Your task to perform on an android device: open app "Indeed Job Search" (install if not already installed), go to login, and select forgot password Image 0: 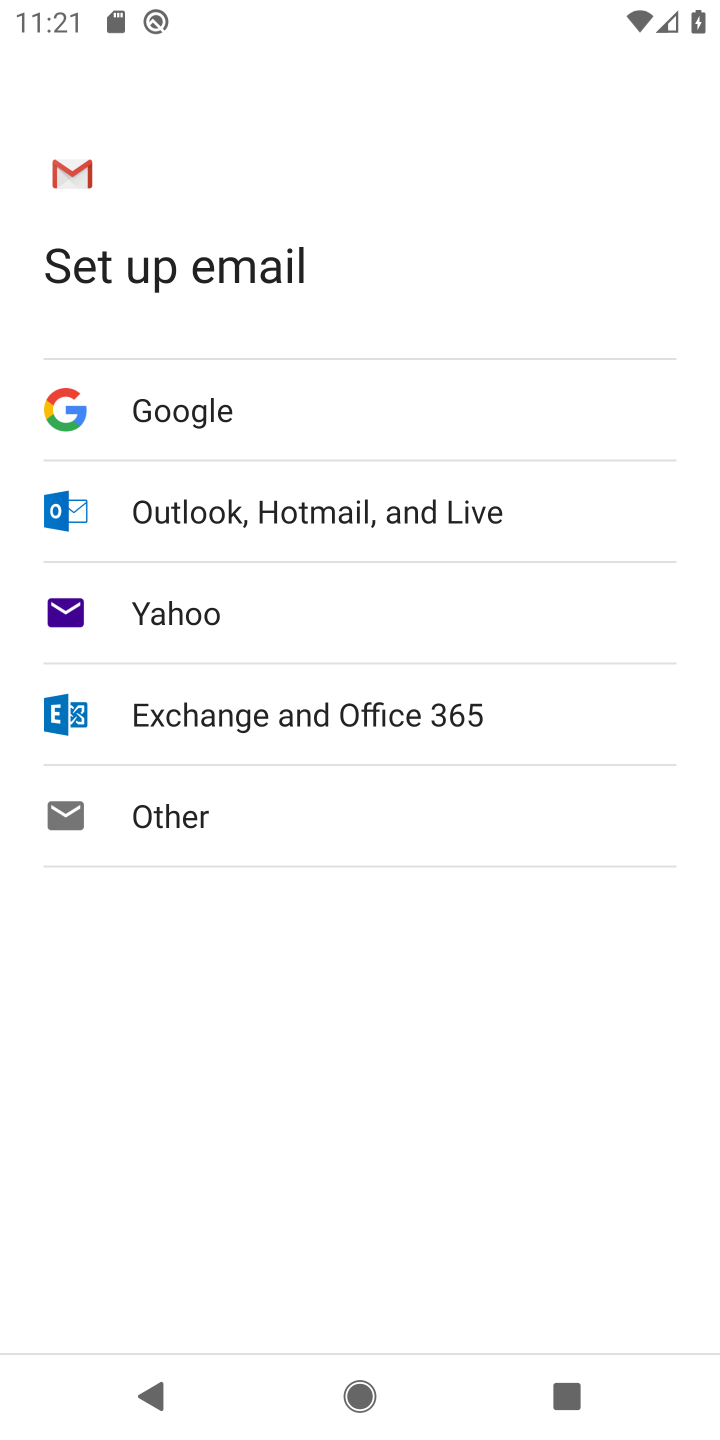
Step 0: press home button
Your task to perform on an android device: open app "Indeed Job Search" (install if not already installed), go to login, and select forgot password Image 1: 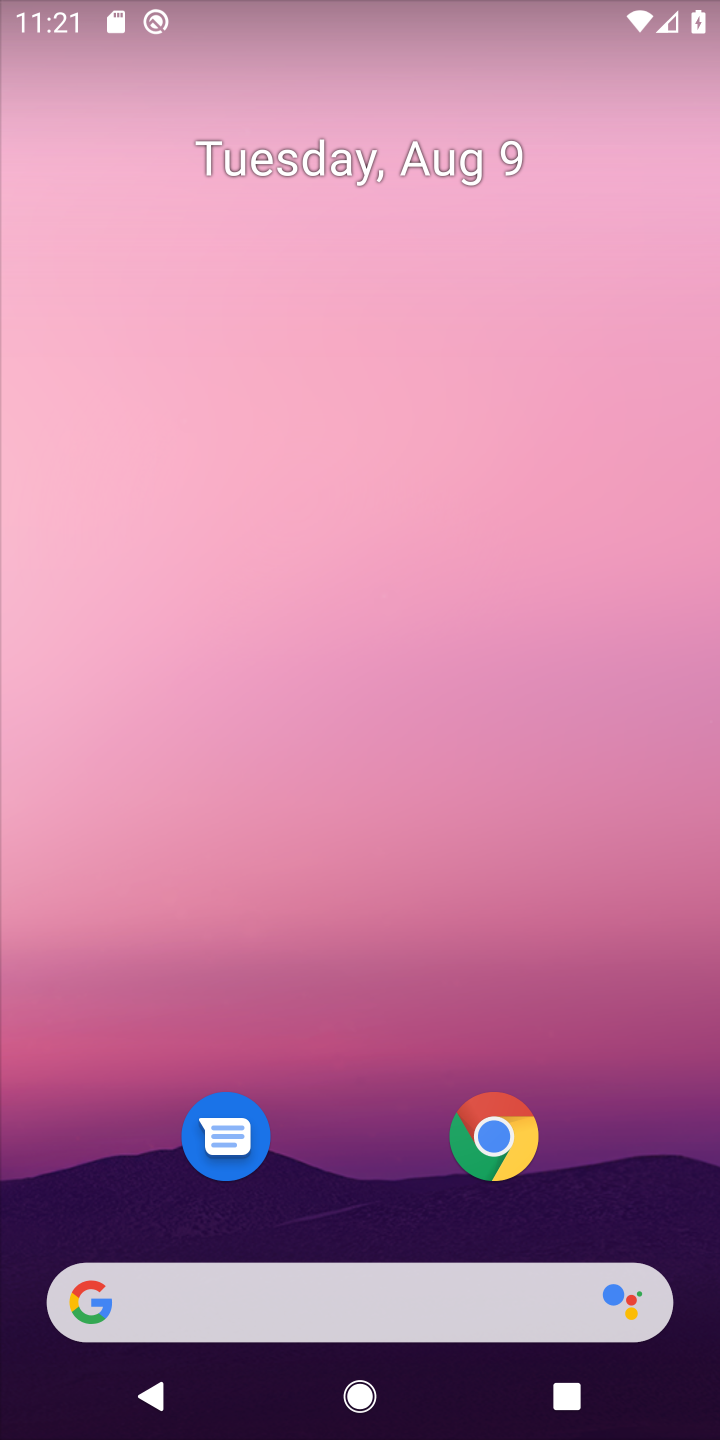
Step 1: drag from (346, 867) to (340, 13)
Your task to perform on an android device: open app "Indeed Job Search" (install if not already installed), go to login, and select forgot password Image 2: 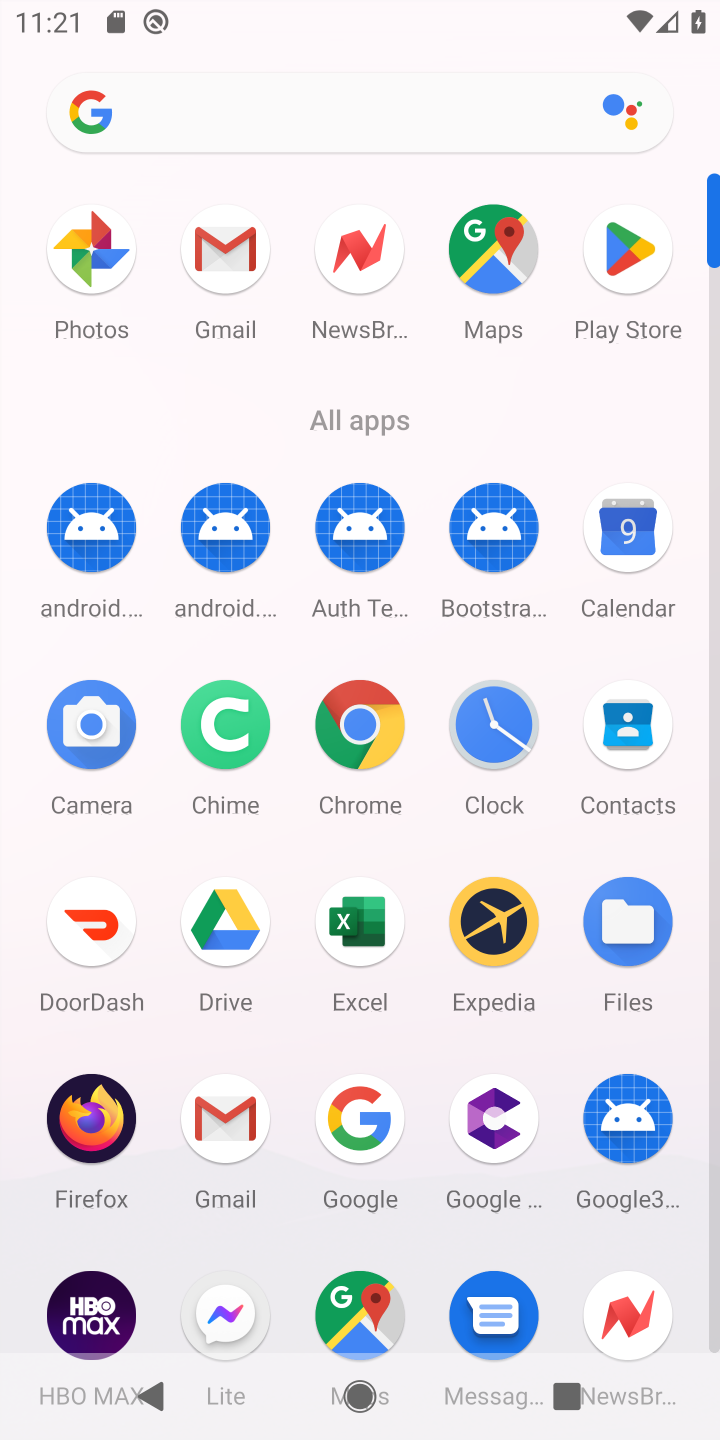
Step 2: click (637, 278)
Your task to perform on an android device: open app "Indeed Job Search" (install if not already installed), go to login, and select forgot password Image 3: 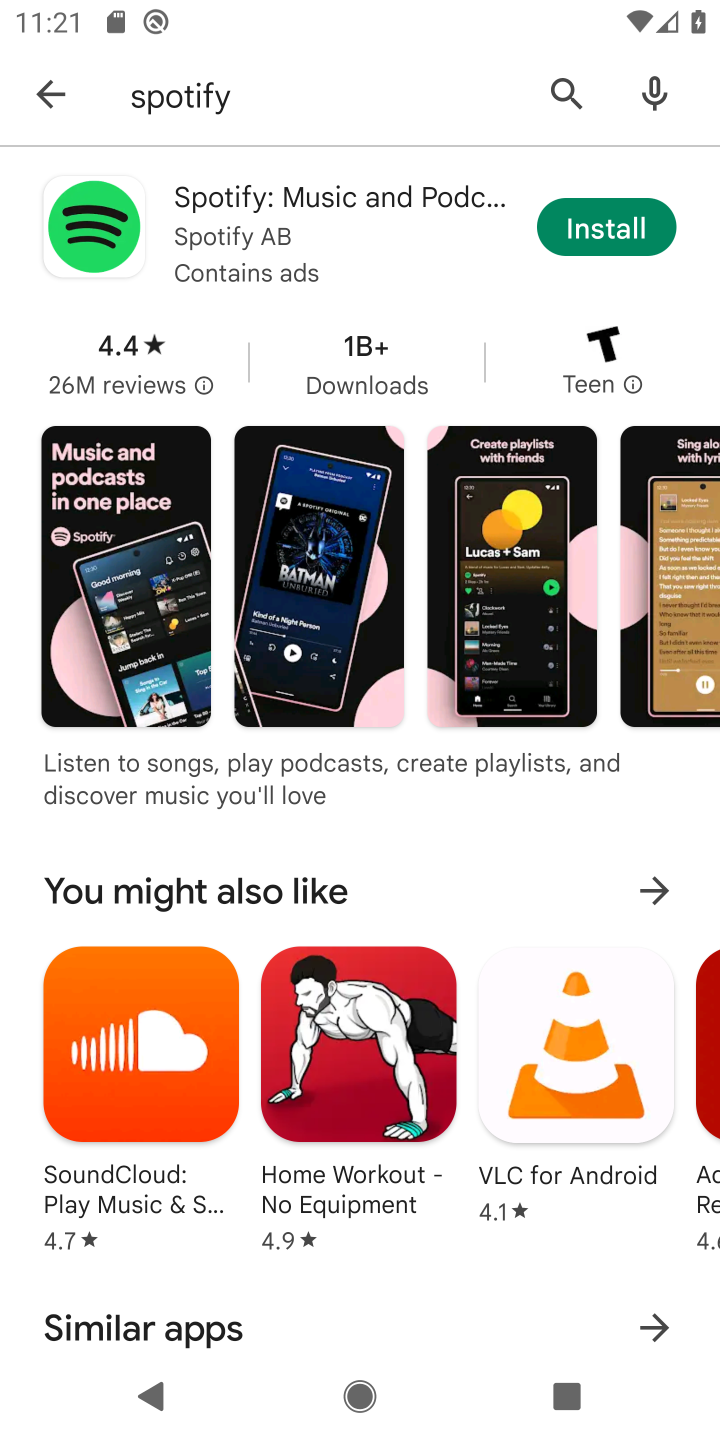
Step 3: click (354, 91)
Your task to perform on an android device: open app "Indeed Job Search" (install if not already installed), go to login, and select forgot password Image 4: 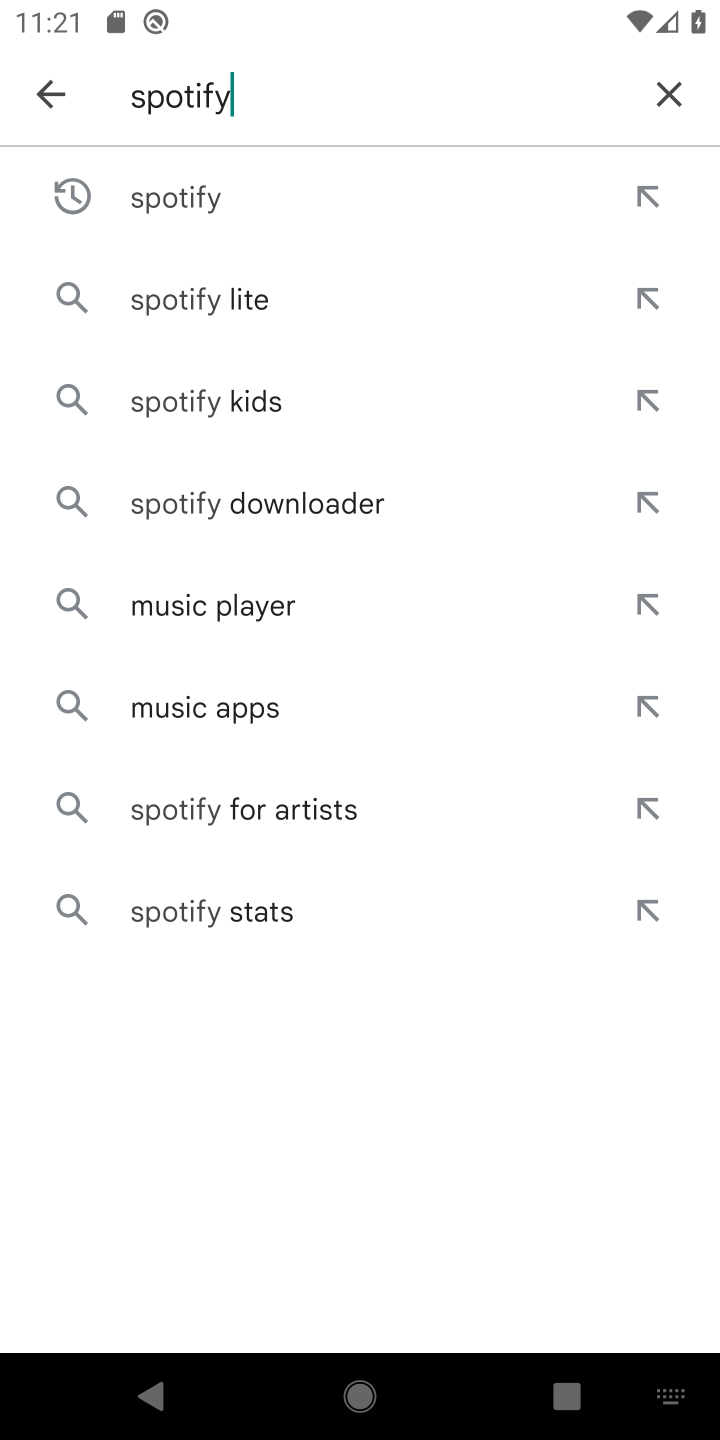
Step 4: click (658, 84)
Your task to perform on an android device: open app "Indeed Job Search" (install if not already installed), go to login, and select forgot password Image 5: 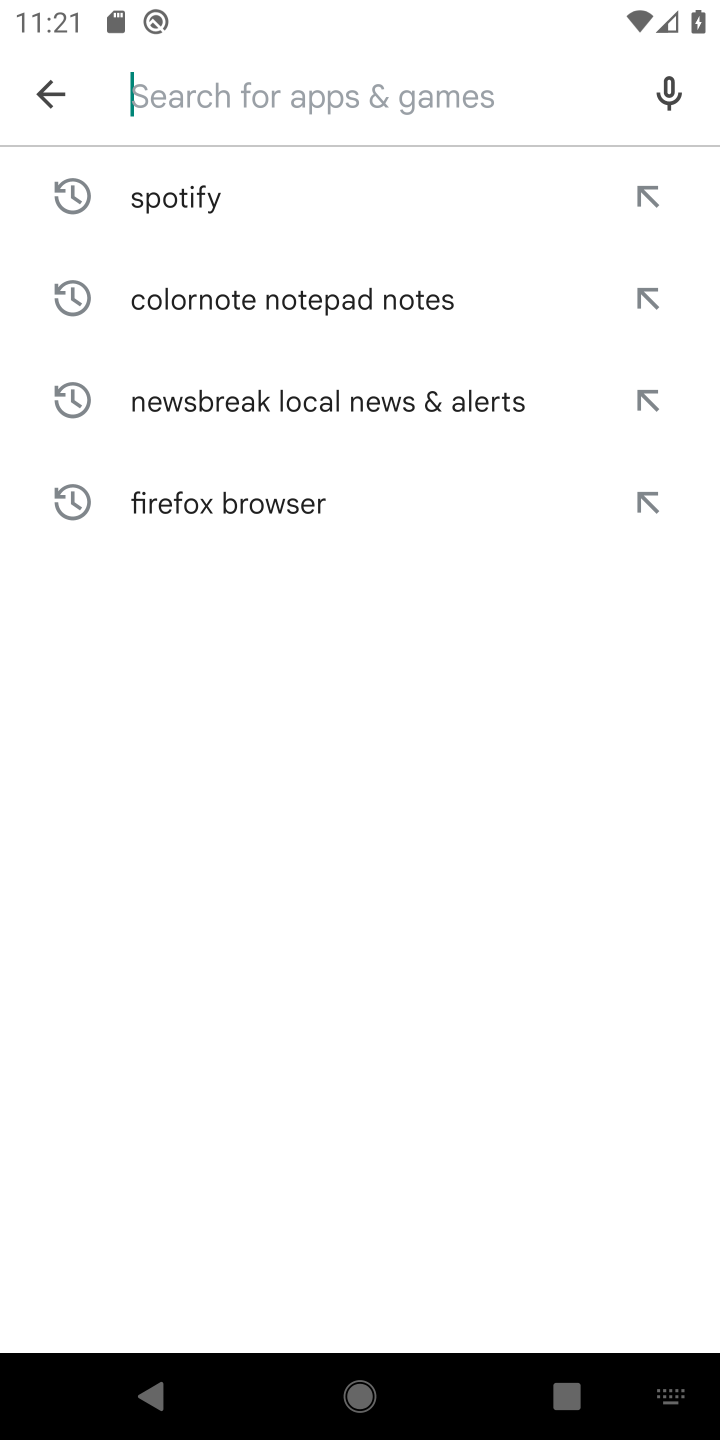
Step 5: type "indeed job search"
Your task to perform on an android device: open app "Indeed Job Search" (install if not already installed), go to login, and select forgot password Image 6: 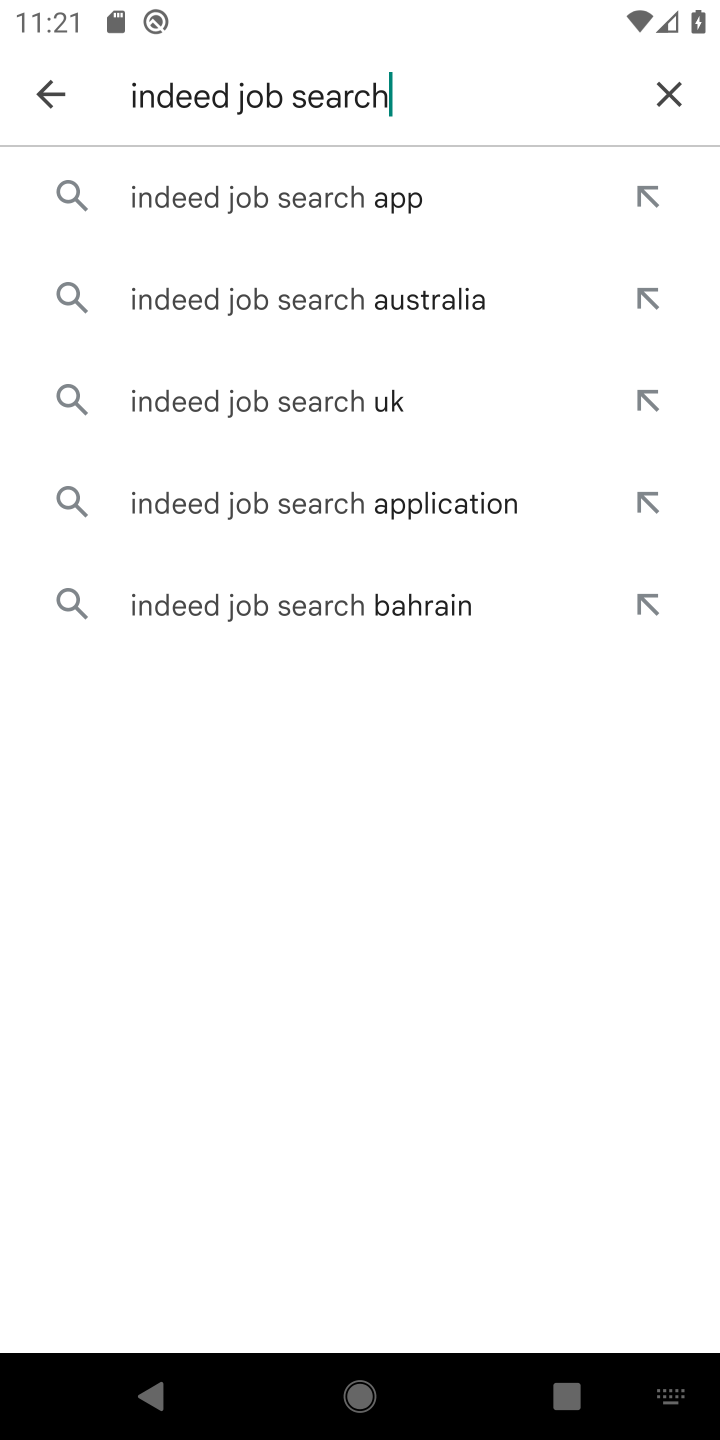
Step 6: click (305, 166)
Your task to perform on an android device: open app "Indeed Job Search" (install if not already installed), go to login, and select forgot password Image 7: 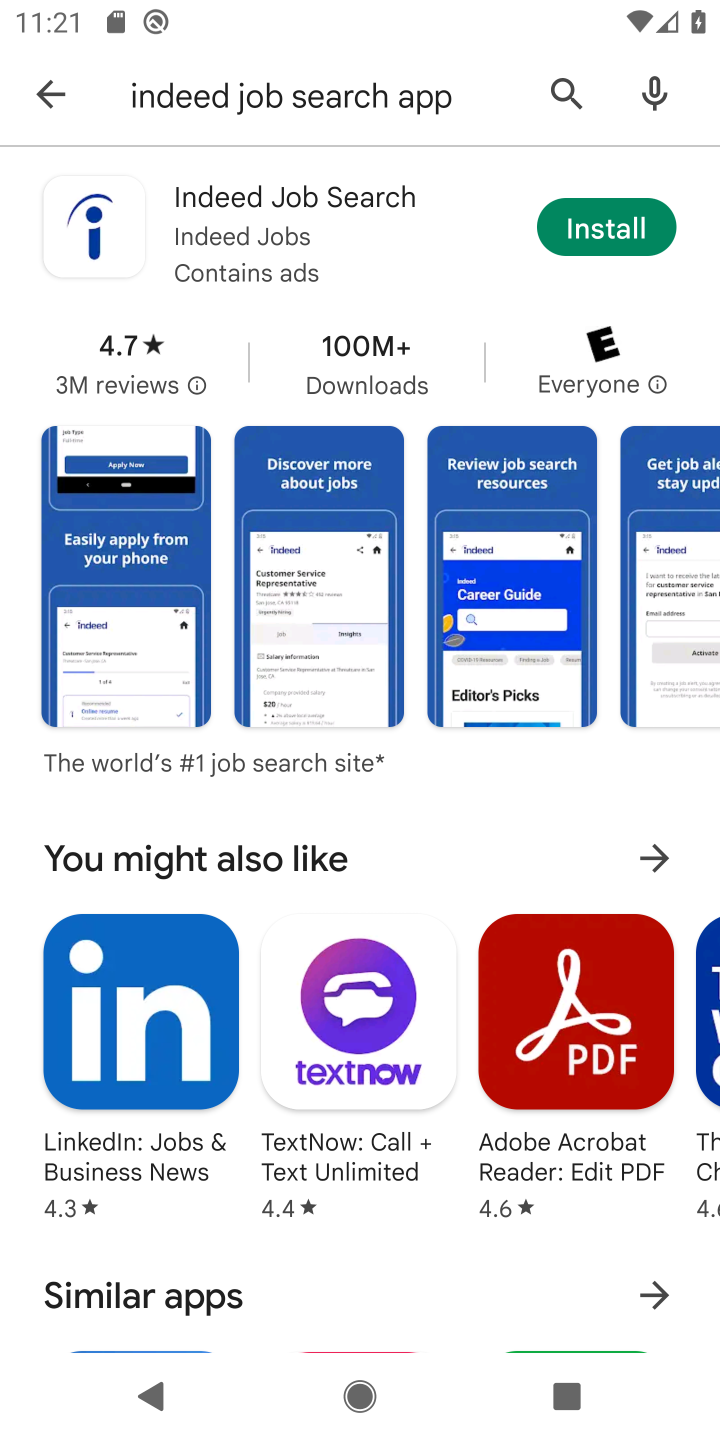
Step 7: click (579, 237)
Your task to perform on an android device: open app "Indeed Job Search" (install if not already installed), go to login, and select forgot password Image 8: 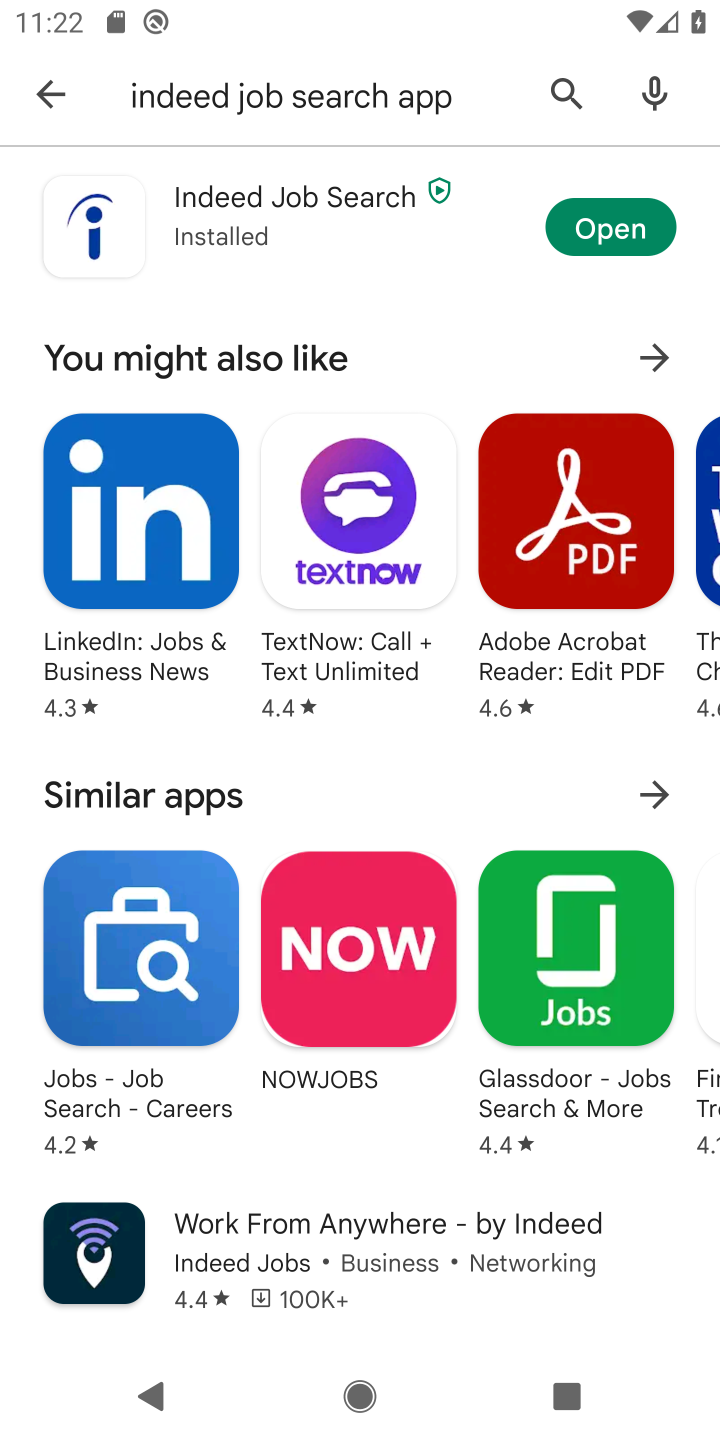
Step 8: click (605, 248)
Your task to perform on an android device: open app "Indeed Job Search" (install if not already installed), go to login, and select forgot password Image 9: 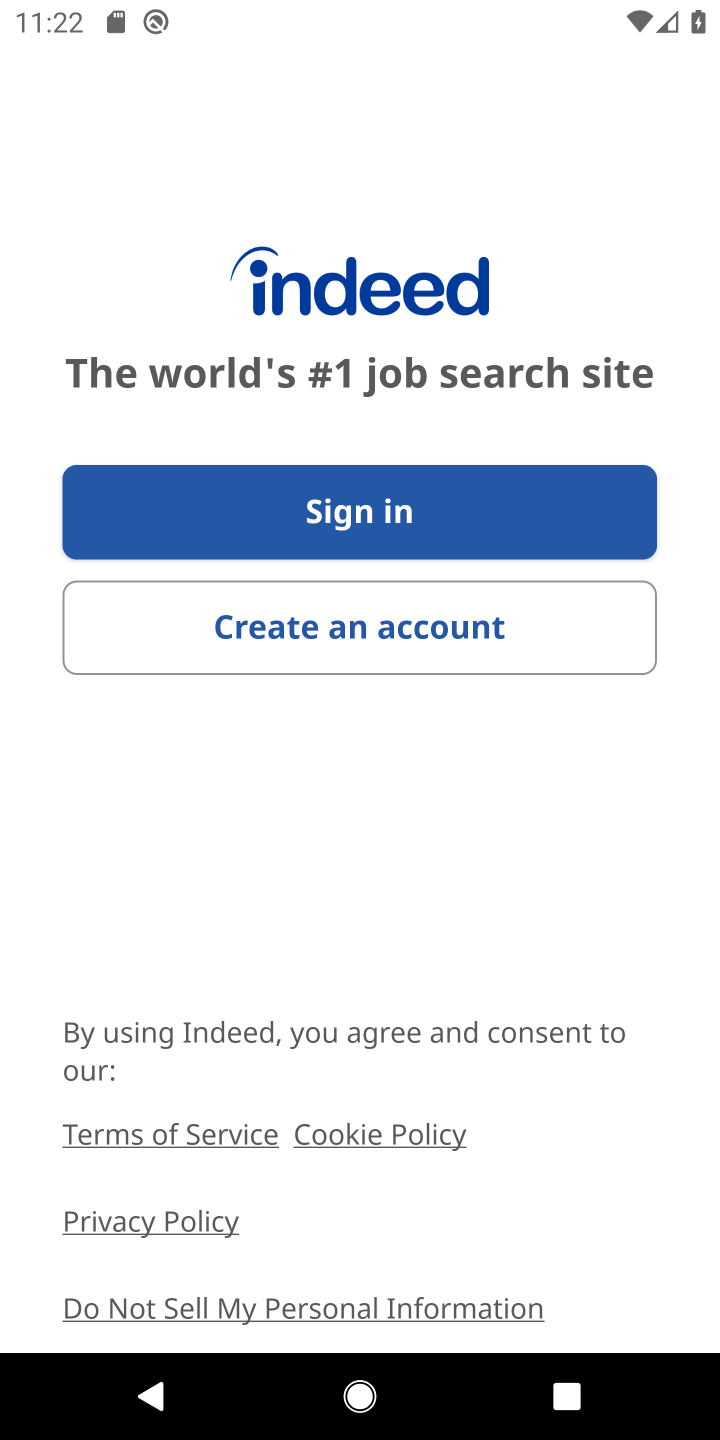
Step 9: click (421, 520)
Your task to perform on an android device: open app "Indeed Job Search" (install if not already installed), go to login, and select forgot password Image 10: 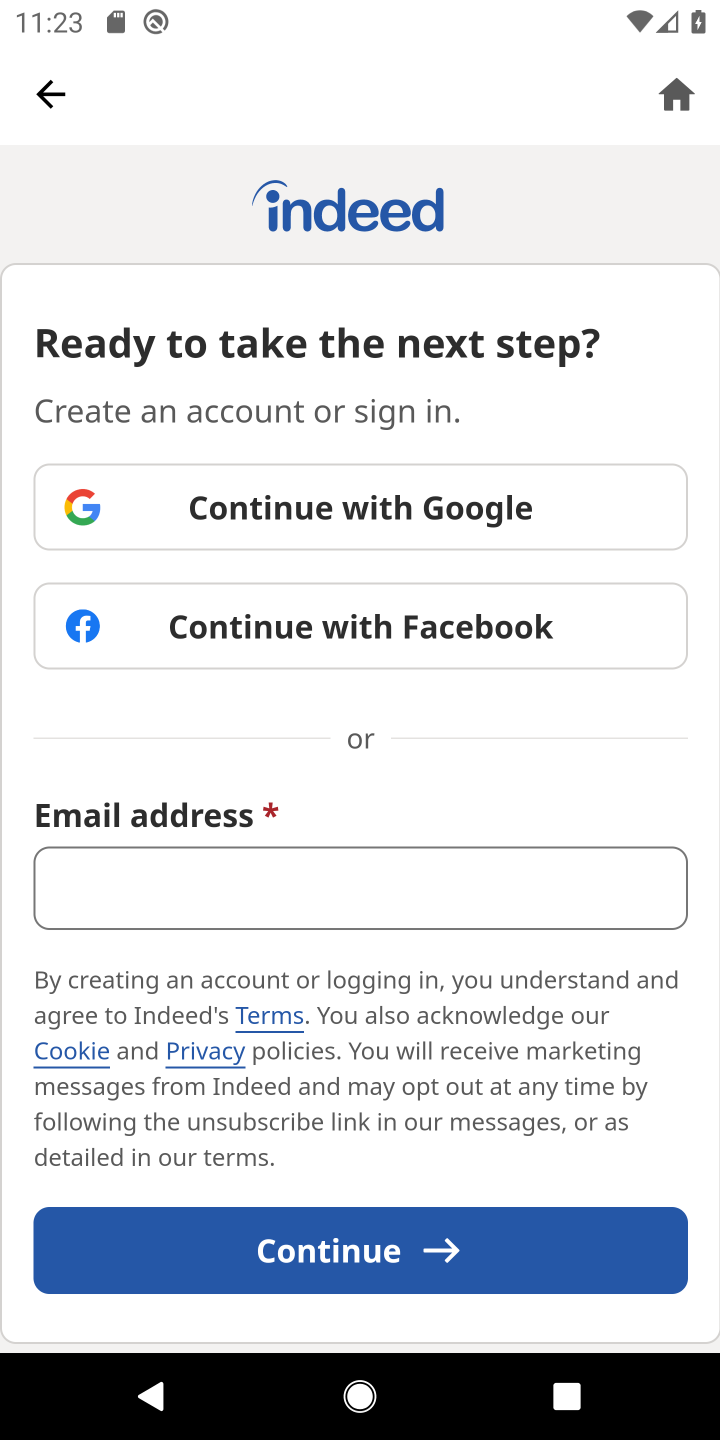
Step 10: click (256, 490)
Your task to perform on an android device: open app "Indeed Job Search" (install if not already installed), go to login, and select forgot password Image 11: 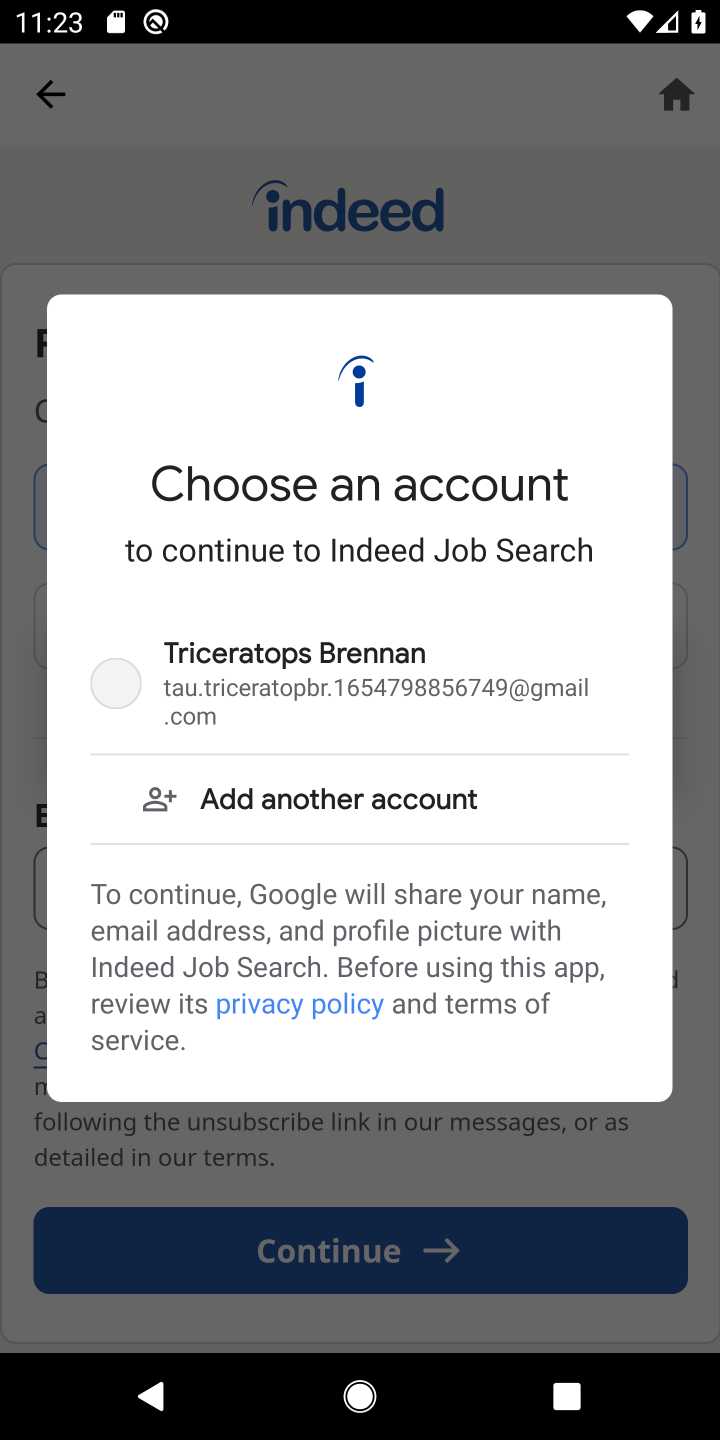
Step 11: click (380, 664)
Your task to perform on an android device: open app "Indeed Job Search" (install if not already installed), go to login, and select forgot password Image 12: 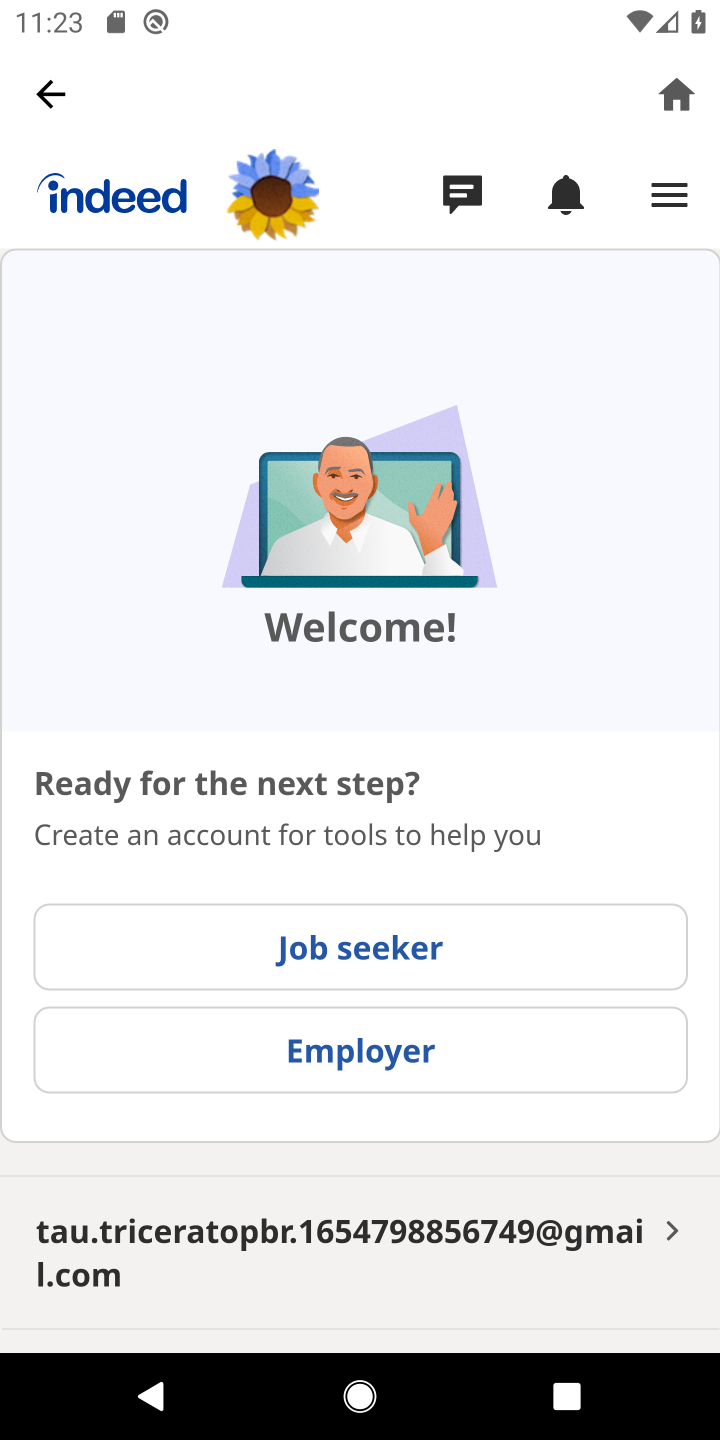
Step 12: click (662, 198)
Your task to perform on an android device: open app "Indeed Job Search" (install if not already installed), go to login, and select forgot password Image 13: 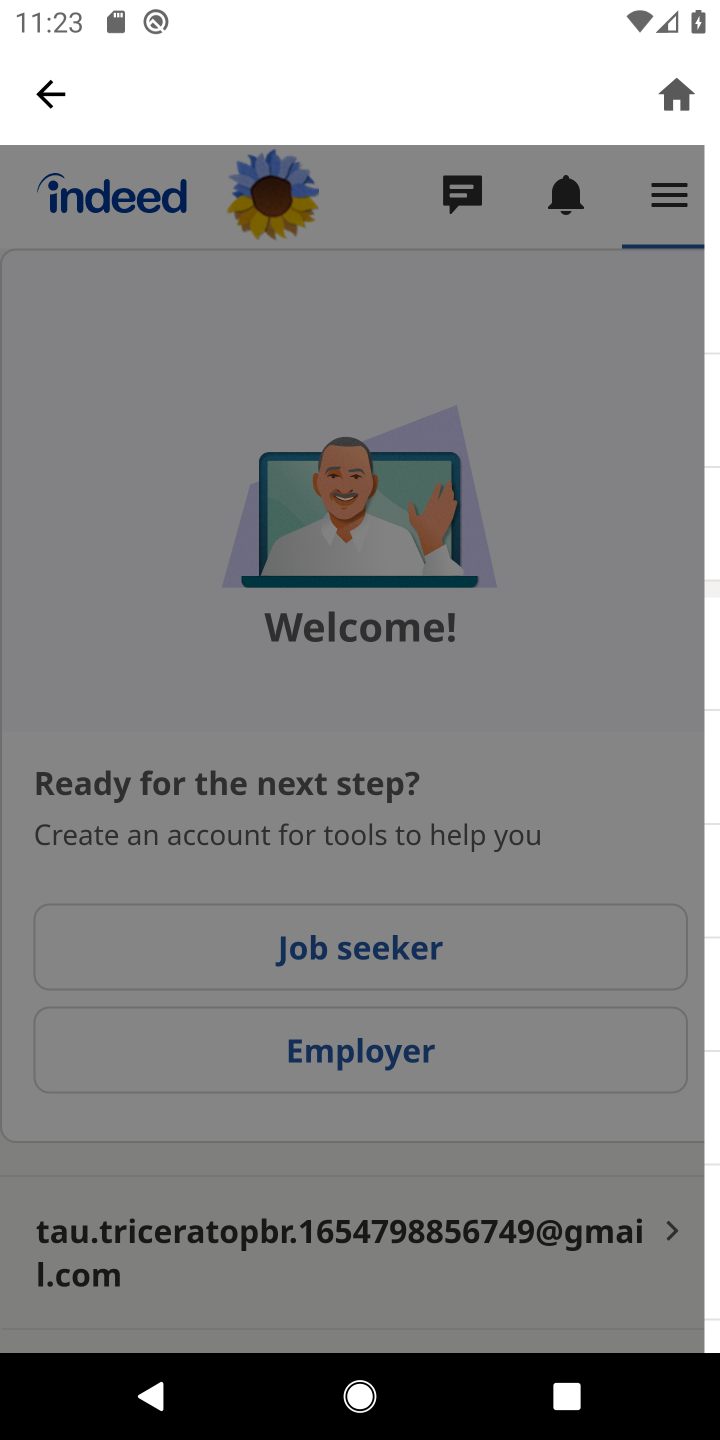
Step 13: click (664, 191)
Your task to perform on an android device: open app "Indeed Job Search" (install if not already installed), go to login, and select forgot password Image 14: 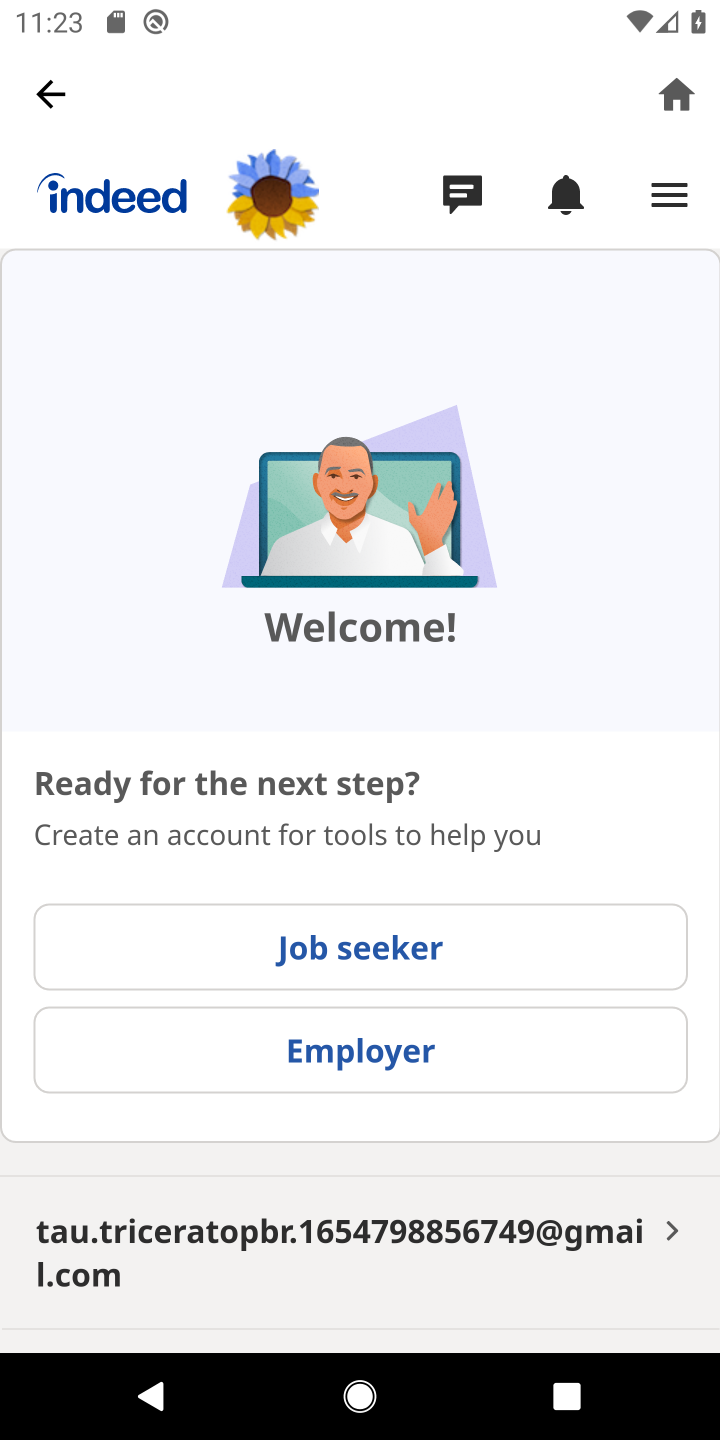
Step 14: click (650, 207)
Your task to perform on an android device: open app "Indeed Job Search" (install if not already installed), go to login, and select forgot password Image 15: 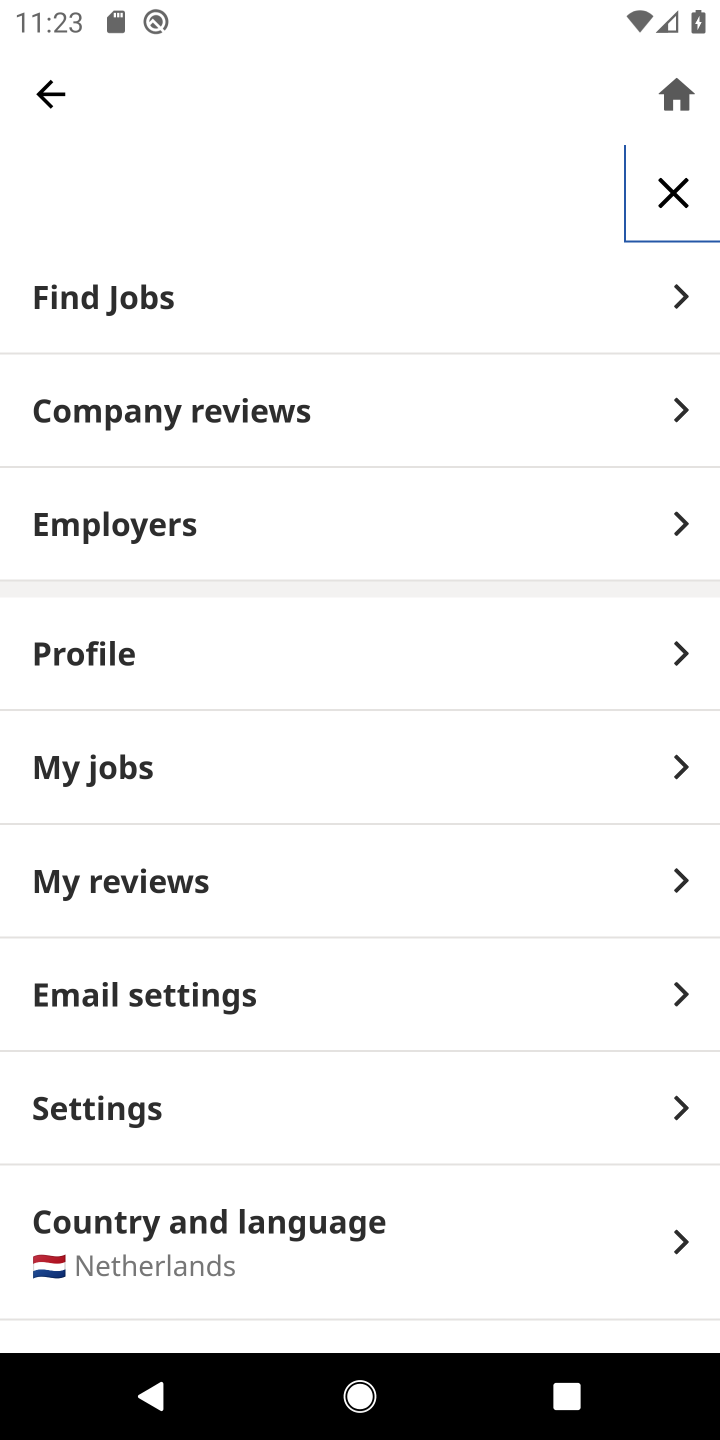
Step 15: click (137, 1097)
Your task to perform on an android device: open app "Indeed Job Search" (install if not already installed), go to login, and select forgot password Image 16: 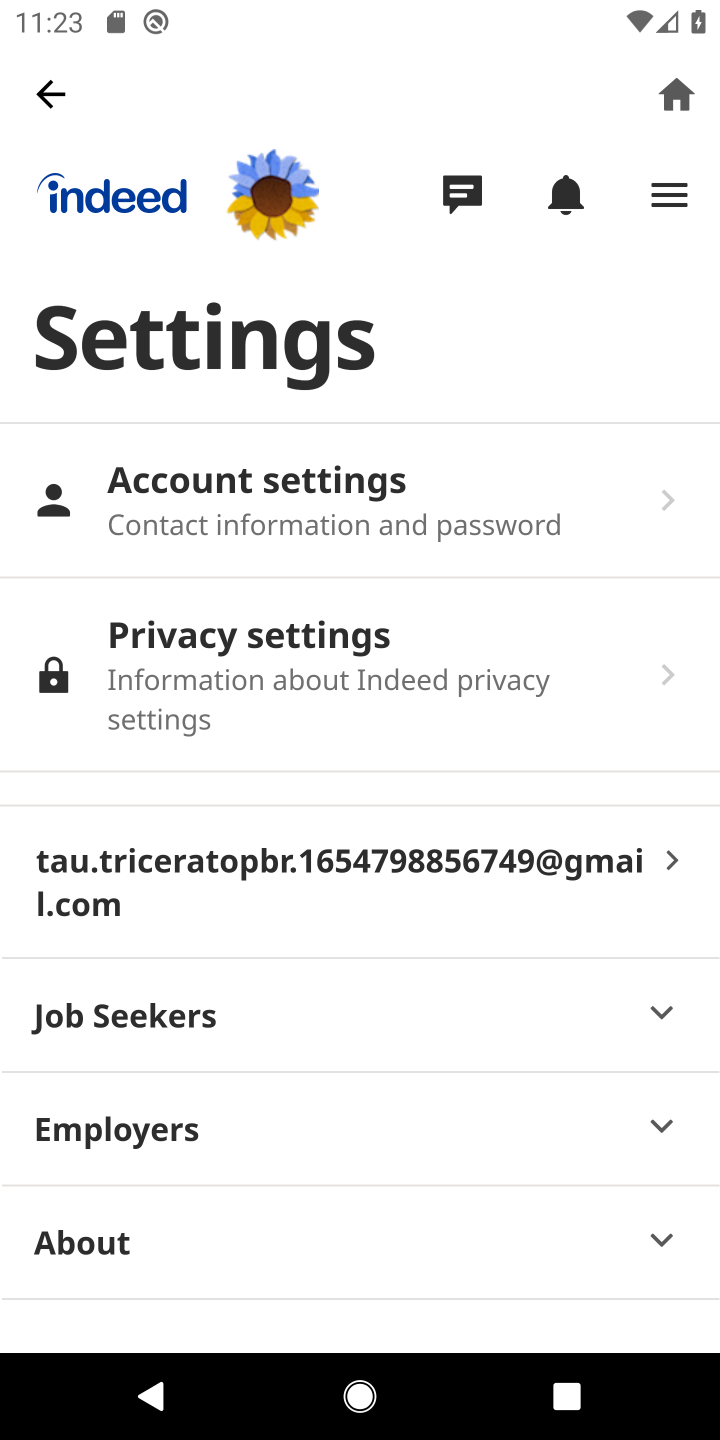
Step 16: drag from (231, 1053) to (253, 497)
Your task to perform on an android device: open app "Indeed Job Search" (install if not already installed), go to login, and select forgot password Image 17: 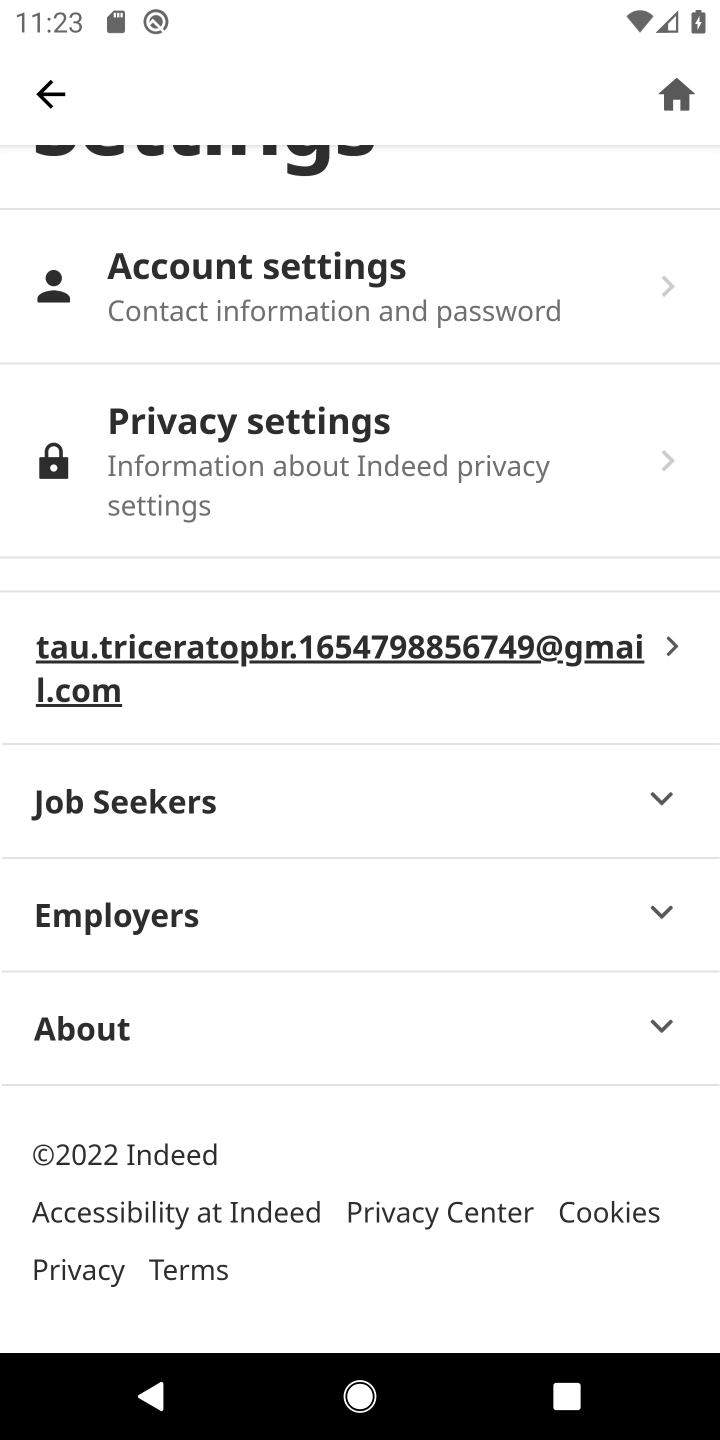
Step 17: click (661, 629)
Your task to perform on an android device: open app "Indeed Job Search" (install if not already installed), go to login, and select forgot password Image 18: 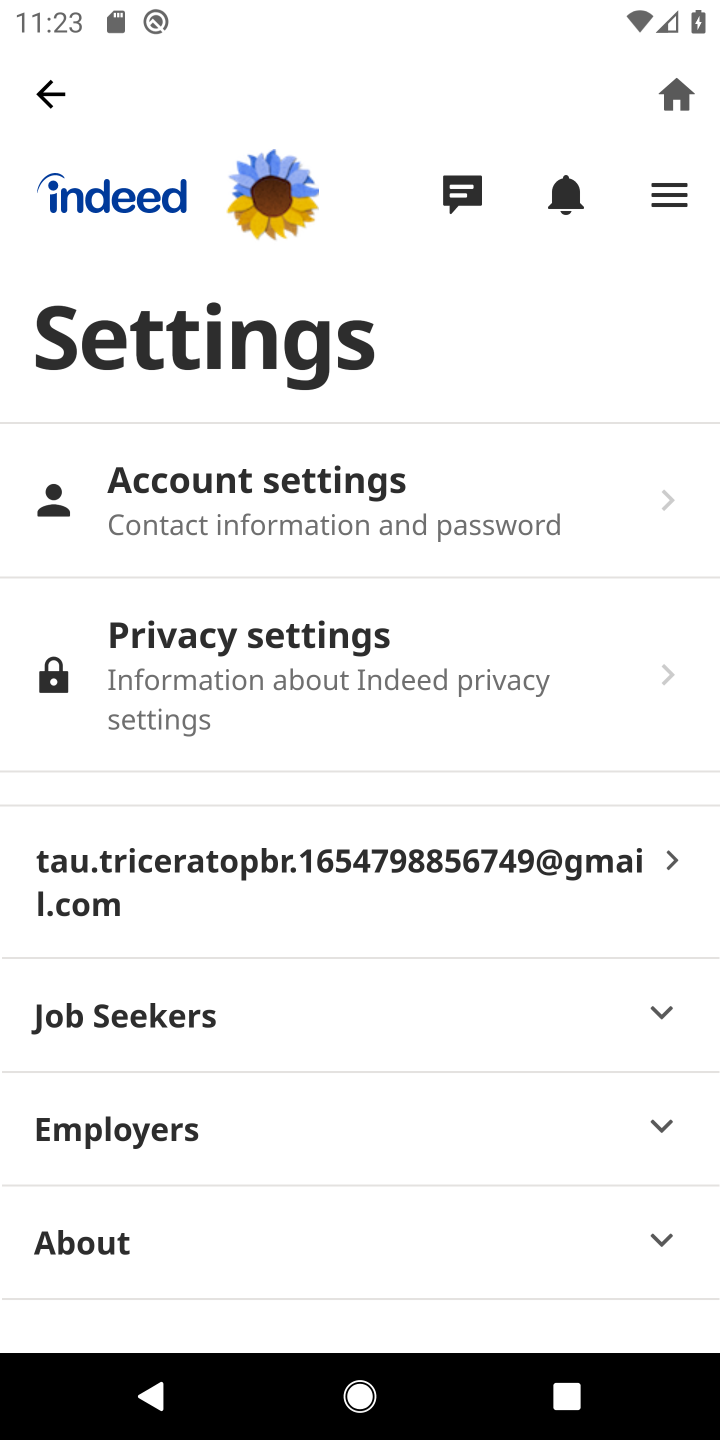
Step 18: task complete